Your task to perform on an android device: check storage Image 0: 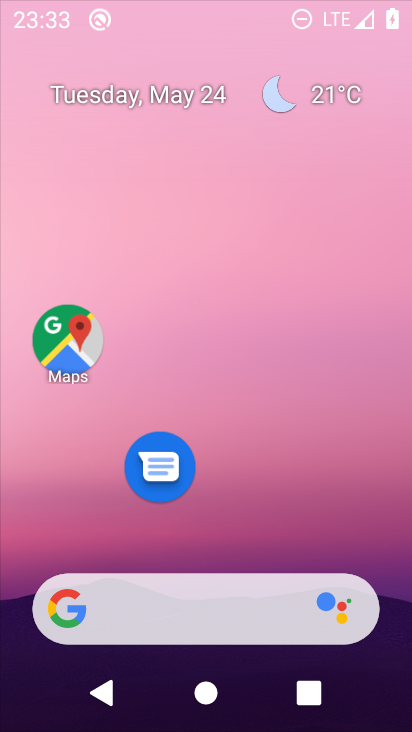
Step 0: click (261, 76)
Your task to perform on an android device: check storage Image 1: 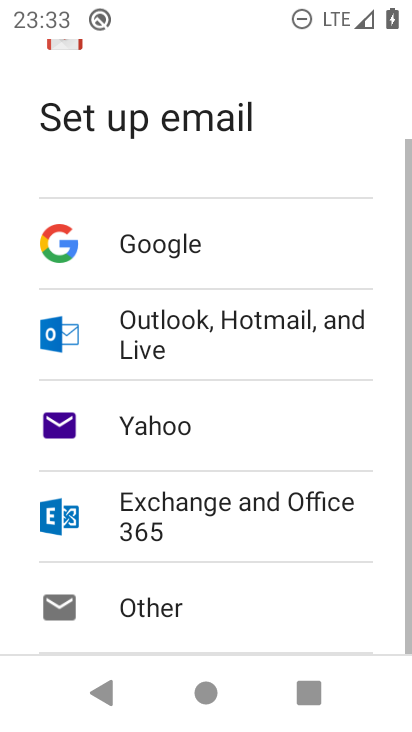
Step 1: press home button
Your task to perform on an android device: check storage Image 2: 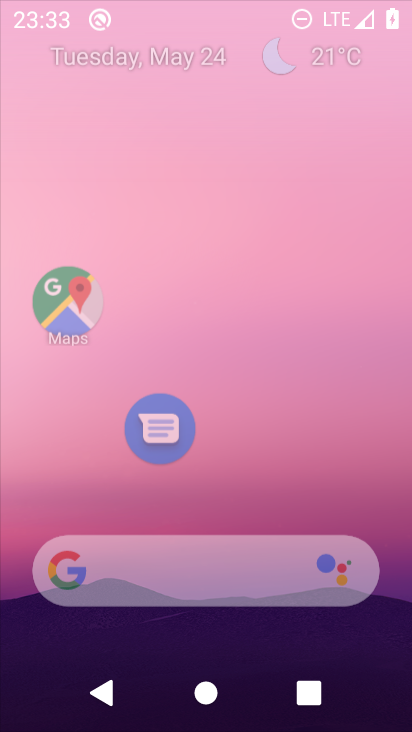
Step 2: drag from (245, 642) to (167, 10)
Your task to perform on an android device: check storage Image 3: 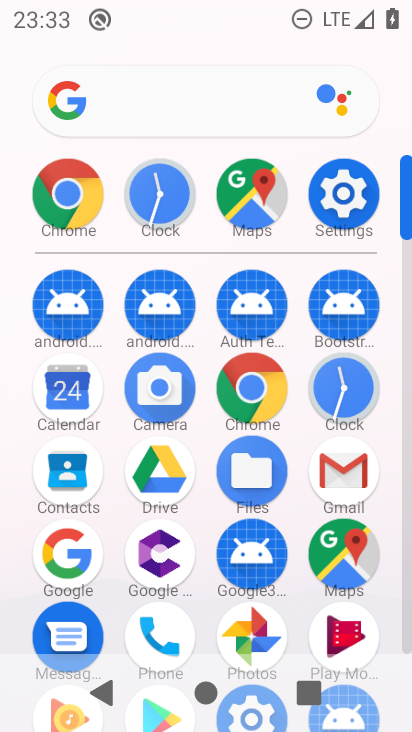
Step 3: click (334, 177)
Your task to perform on an android device: check storage Image 4: 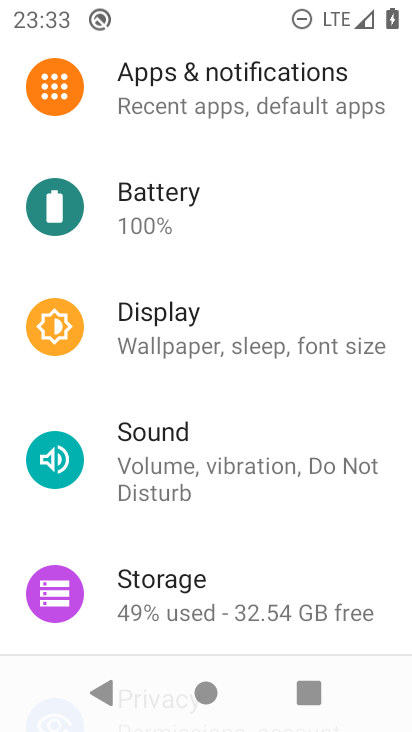
Step 4: click (210, 584)
Your task to perform on an android device: check storage Image 5: 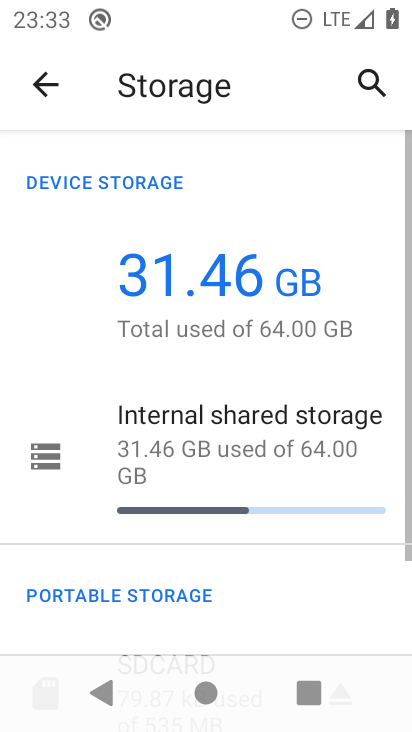
Step 5: task complete